Your task to perform on an android device: Go to Google Image 0: 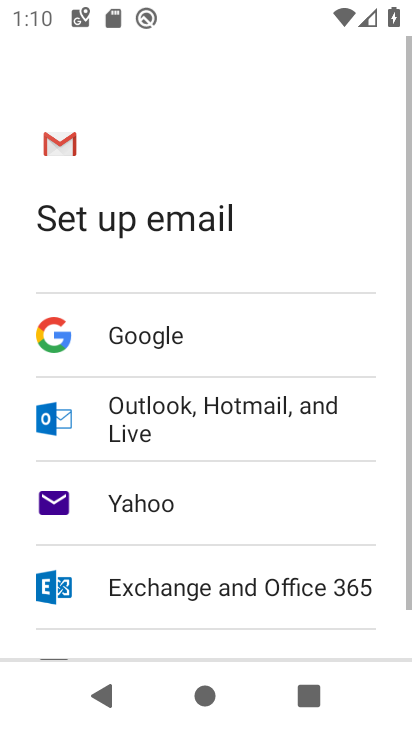
Step 0: press home button
Your task to perform on an android device: Go to Google Image 1: 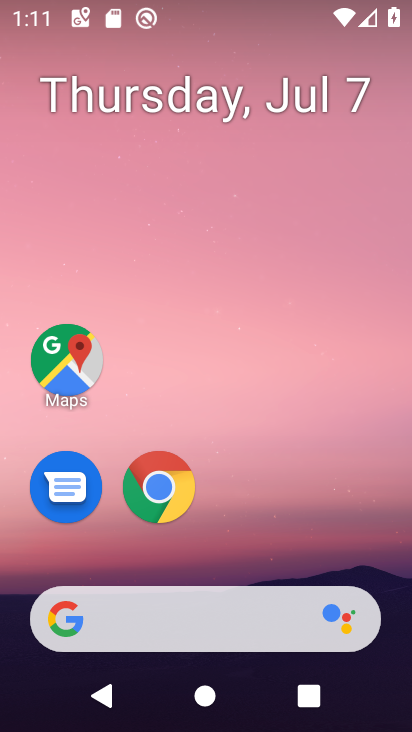
Step 1: drag from (342, 529) to (335, 107)
Your task to perform on an android device: Go to Google Image 2: 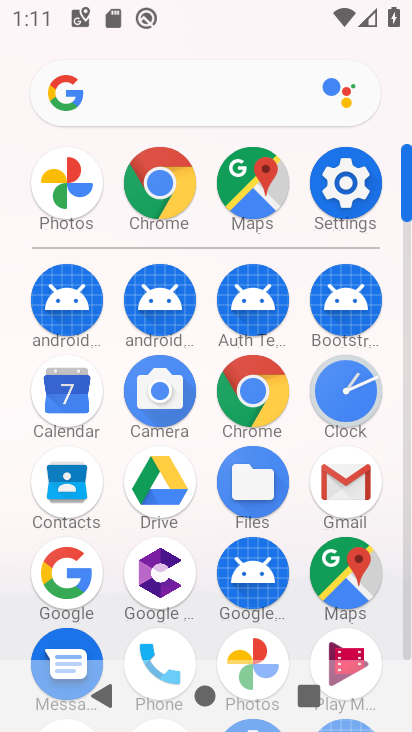
Step 2: click (74, 567)
Your task to perform on an android device: Go to Google Image 3: 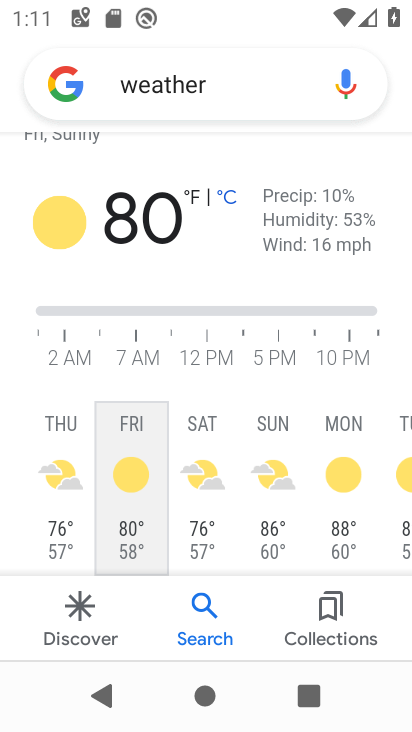
Step 3: task complete